Your task to perform on an android device: turn vacation reply on in the gmail app Image 0: 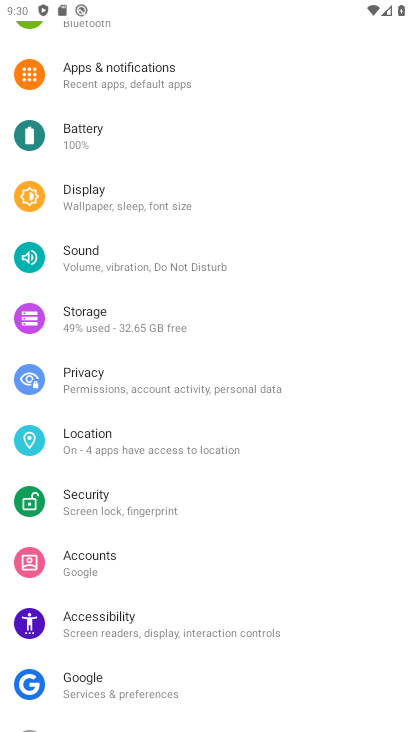
Step 0: press home button
Your task to perform on an android device: turn vacation reply on in the gmail app Image 1: 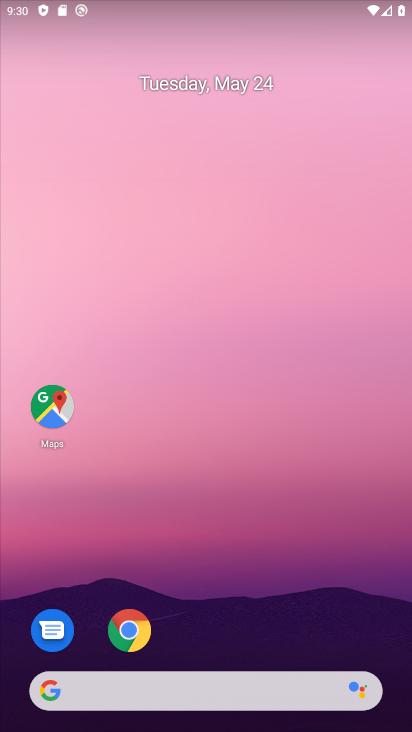
Step 1: drag from (217, 650) to (218, 65)
Your task to perform on an android device: turn vacation reply on in the gmail app Image 2: 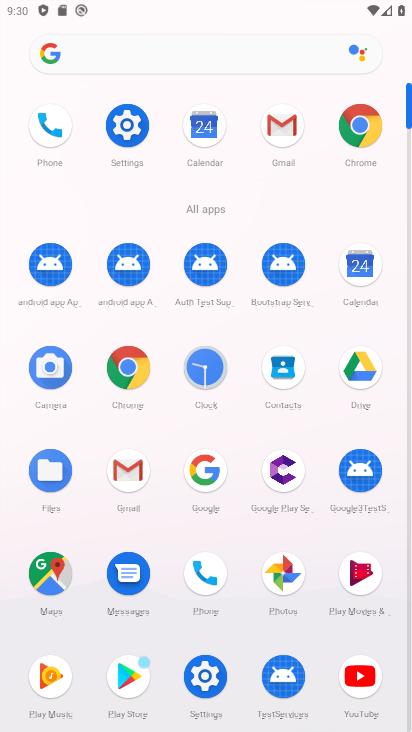
Step 2: click (280, 115)
Your task to perform on an android device: turn vacation reply on in the gmail app Image 3: 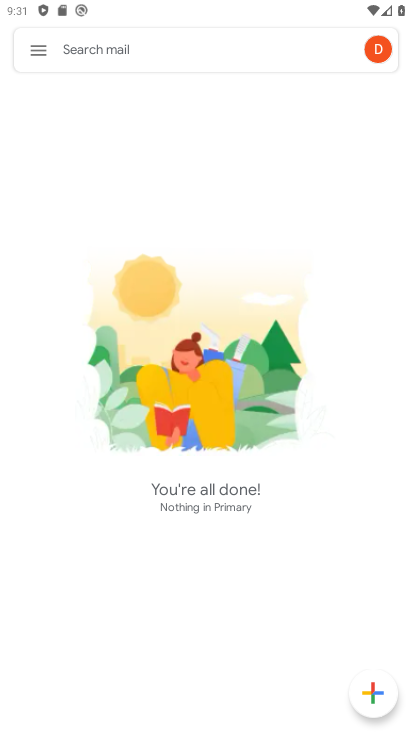
Step 3: click (33, 44)
Your task to perform on an android device: turn vacation reply on in the gmail app Image 4: 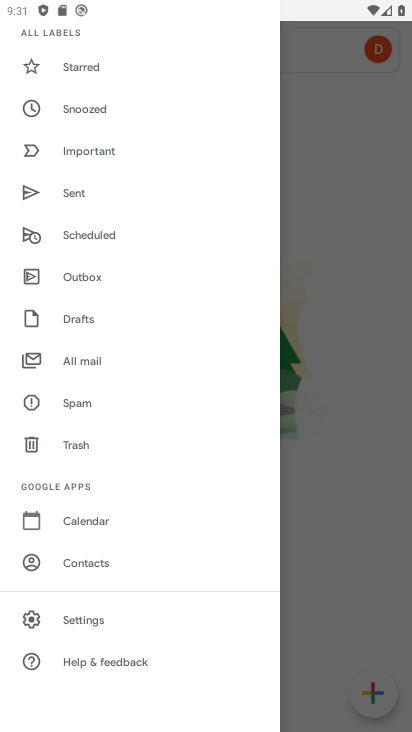
Step 4: click (116, 622)
Your task to perform on an android device: turn vacation reply on in the gmail app Image 5: 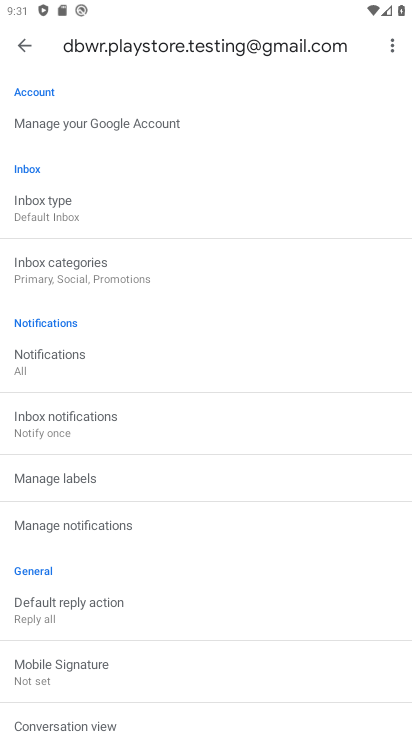
Step 5: drag from (151, 641) to (169, 102)
Your task to perform on an android device: turn vacation reply on in the gmail app Image 6: 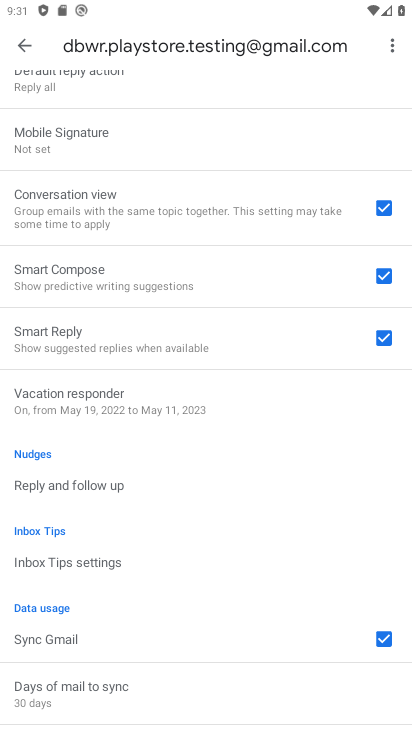
Step 6: drag from (133, 621) to (169, 238)
Your task to perform on an android device: turn vacation reply on in the gmail app Image 7: 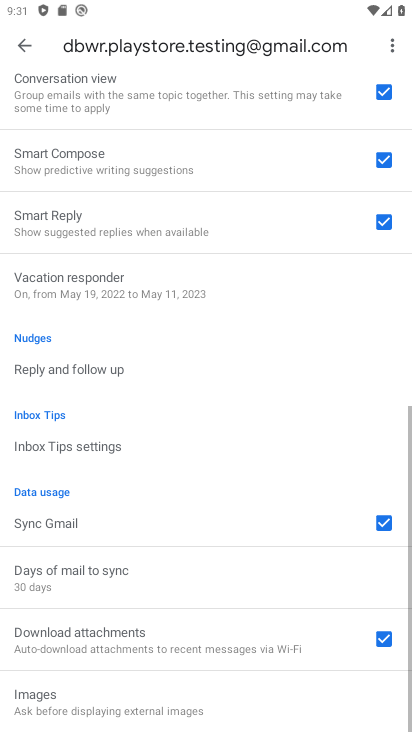
Step 7: click (152, 397)
Your task to perform on an android device: turn vacation reply on in the gmail app Image 8: 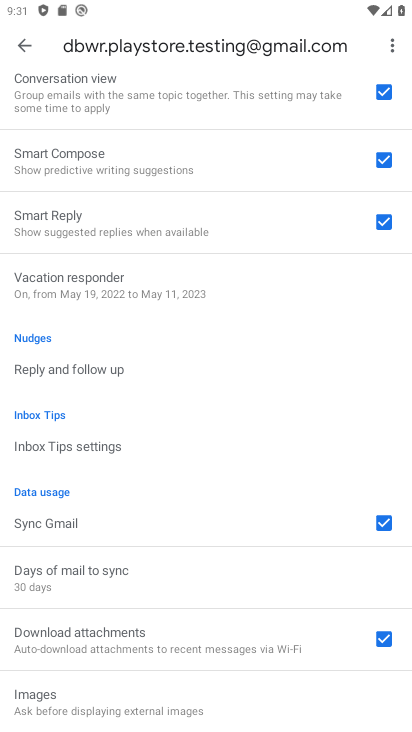
Step 8: click (119, 292)
Your task to perform on an android device: turn vacation reply on in the gmail app Image 9: 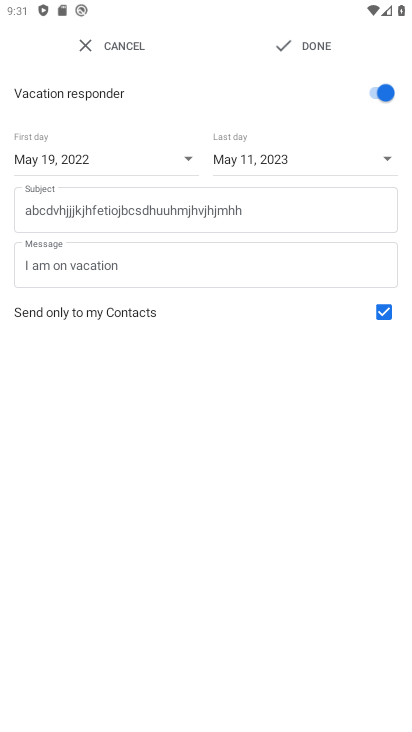
Step 9: task complete